Your task to perform on an android device: clear history in the chrome app Image 0: 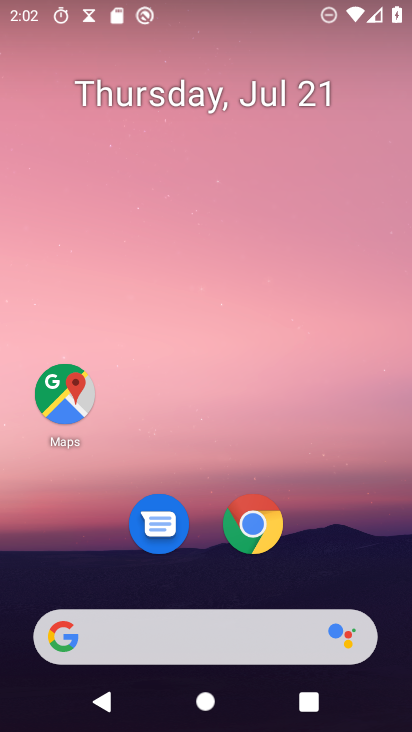
Step 0: click (244, 531)
Your task to perform on an android device: clear history in the chrome app Image 1: 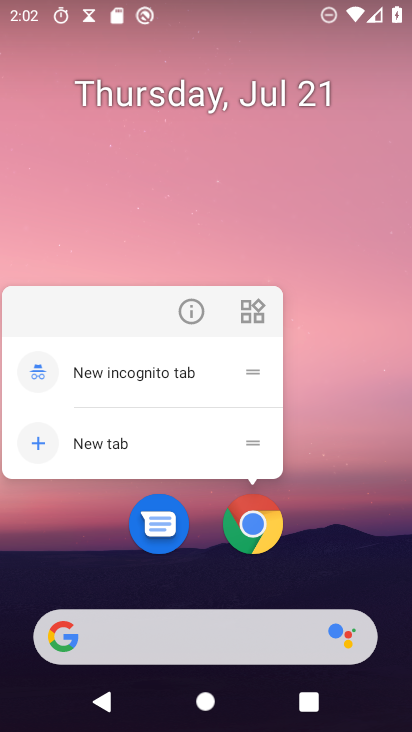
Step 1: click (257, 528)
Your task to perform on an android device: clear history in the chrome app Image 2: 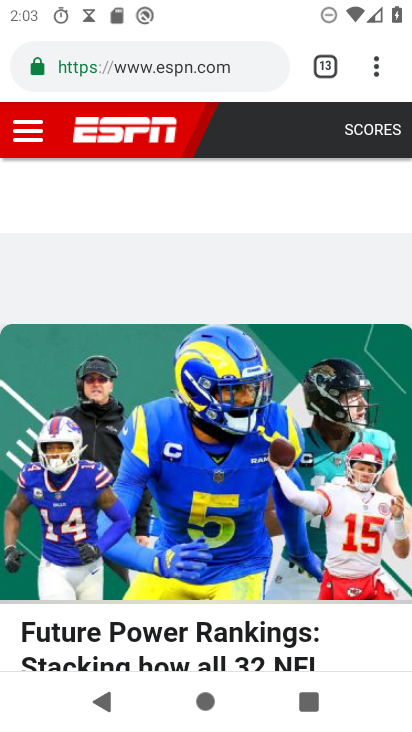
Step 2: drag from (385, 73) to (198, 361)
Your task to perform on an android device: clear history in the chrome app Image 3: 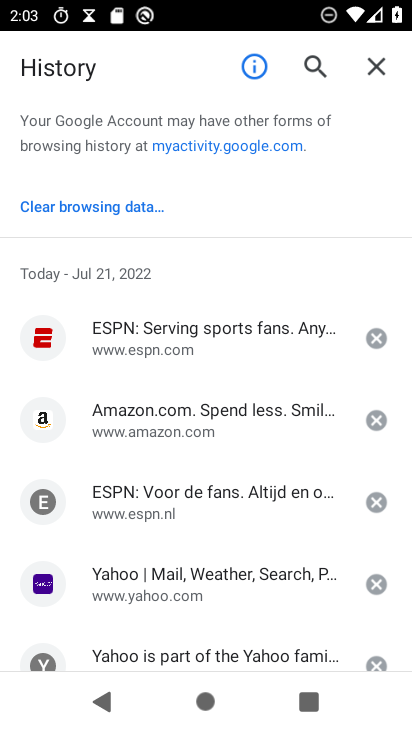
Step 3: click (119, 206)
Your task to perform on an android device: clear history in the chrome app Image 4: 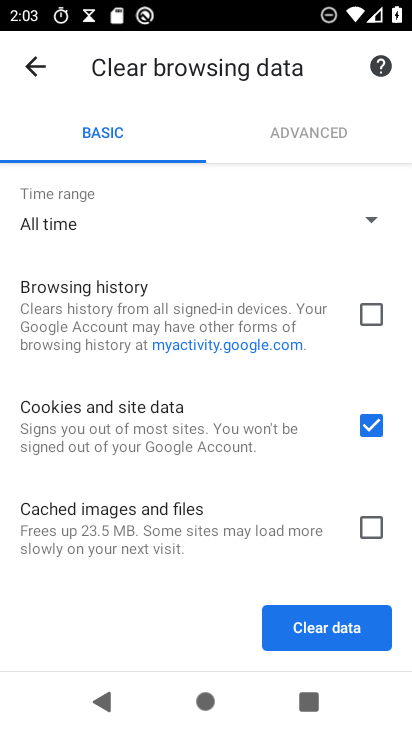
Step 4: click (364, 315)
Your task to perform on an android device: clear history in the chrome app Image 5: 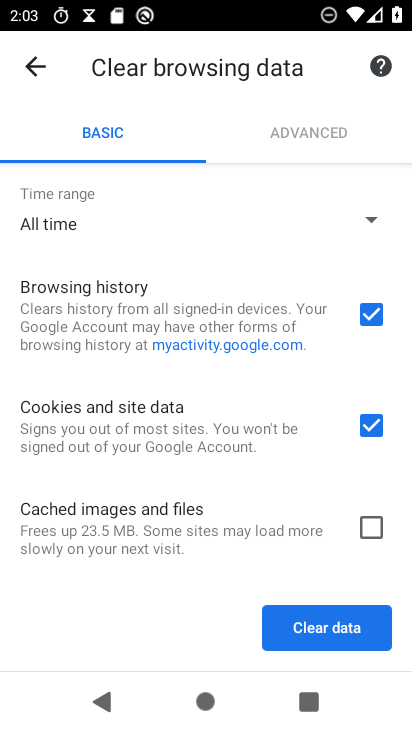
Step 5: click (376, 527)
Your task to perform on an android device: clear history in the chrome app Image 6: 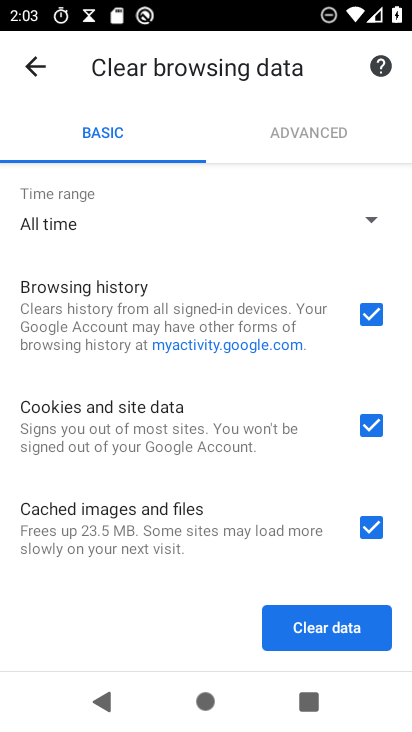
Step 6: click (337, 621)
Your task to perform on an android device: clear history in the chrome app Image 7: 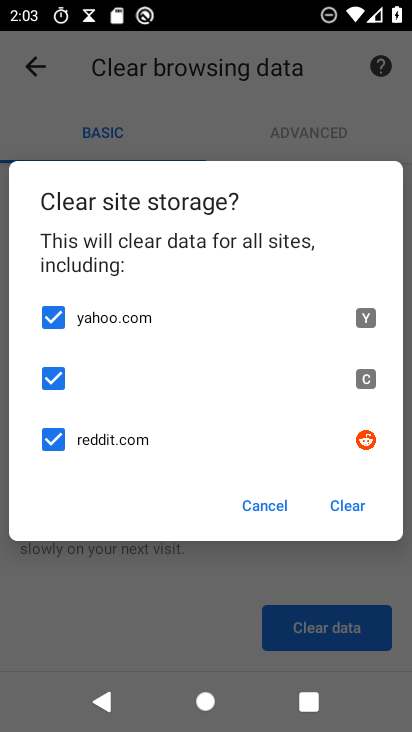
Step 7: click (345, 512)
Your task to perform on an android device: clear history in the chrome app Image 8: 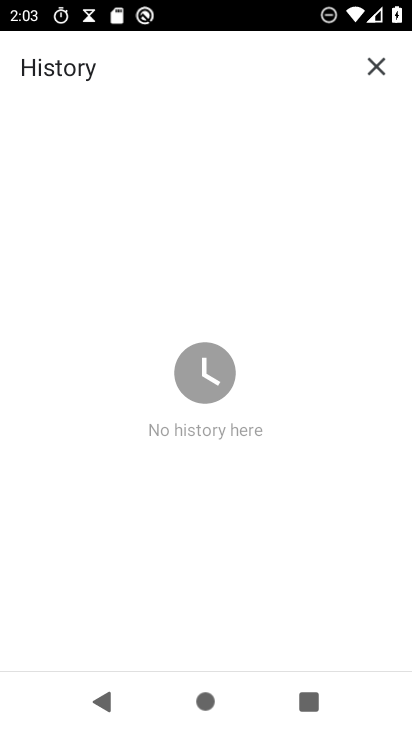
Step 8: task complete